Your task to perform on an android device: open chrome privacy settings Image 0: 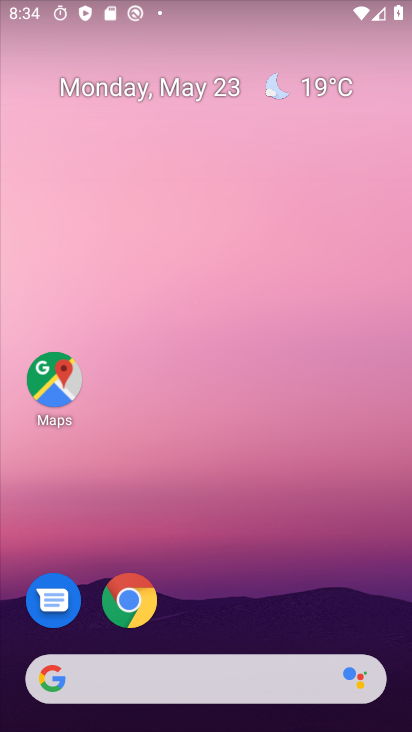
Step 0: click (120, 600)
Your task to perform on an android device: open chrome privacy settings Image 1: 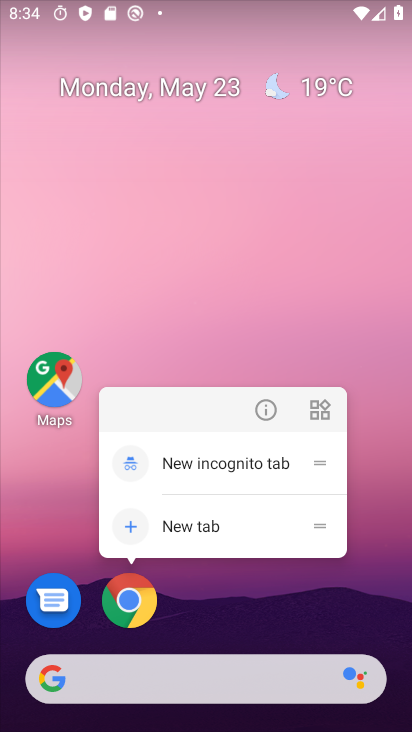
Step 1: click (127, 595)
Your task to perform on an android device: open chrome privacy settings Image 2: 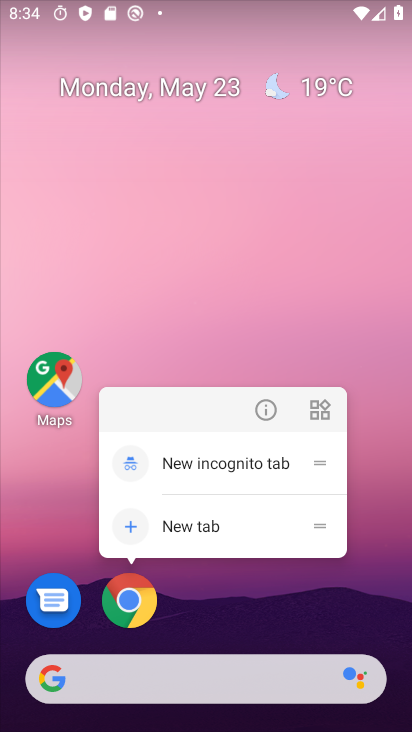
Step 2: click (127, 595)
Your task to perform on an android device: open chrome privacy settings Image 3: 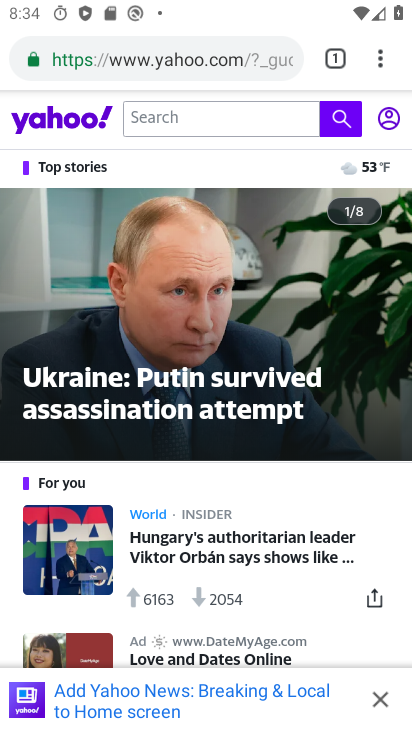
Step 3: click (380, 56)
Your task to perform on an android device: open chrome privacy settings Image 4: 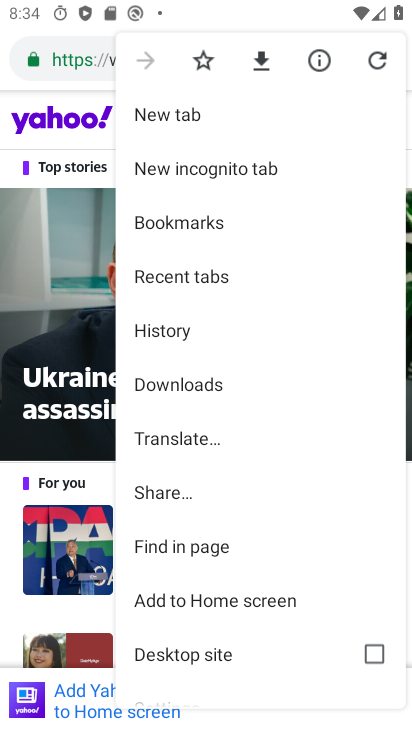
Step 4: drag from (81, 694) to (265, 232)
Your task to perform on an android device: open chrome privacy settings Image 5: 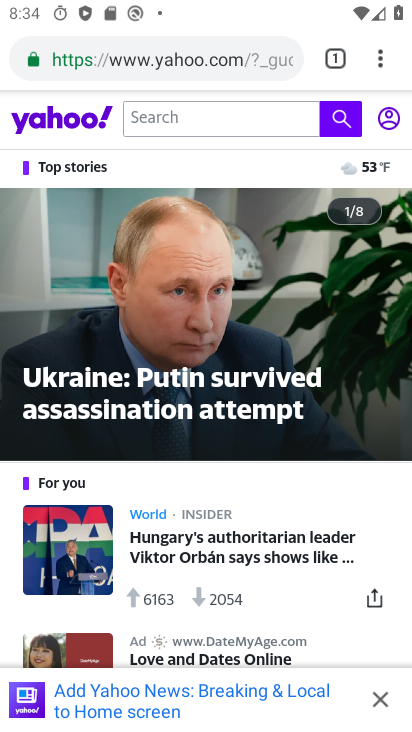
Step 5: click (380, 60)
Your task to perform on an android device: open chrome privacy settings Image 6: 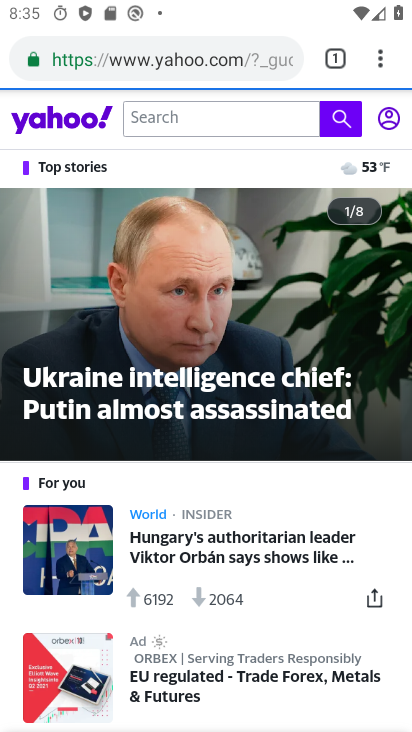
Step 6: click (381, 57)
Your task to perform on an android device: open chrome privacy settings Image 7: 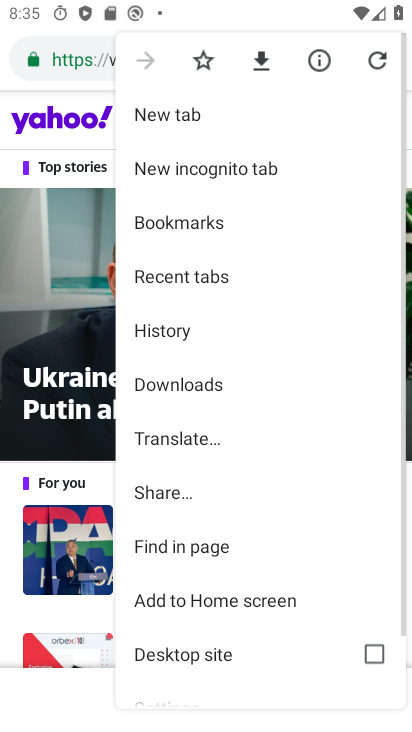
Step 7: drag from (216, 607) to (298, 144)
Your task to perform on an android device: open chrome privacy settings Image 8: 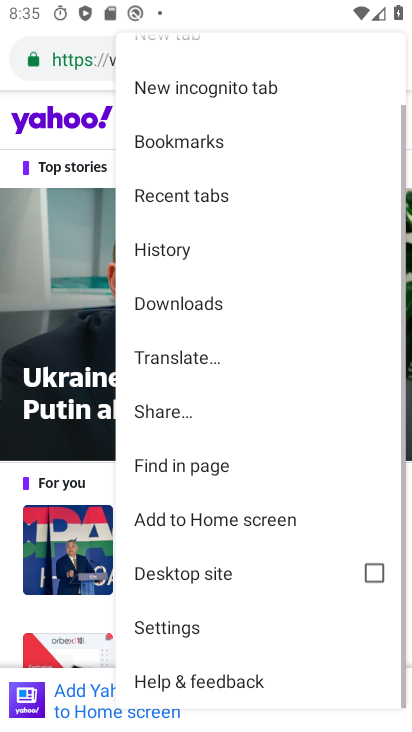
Step 8: click (165, 644)
Your task to perform on an android device: open chrome privacy settings Image 9: 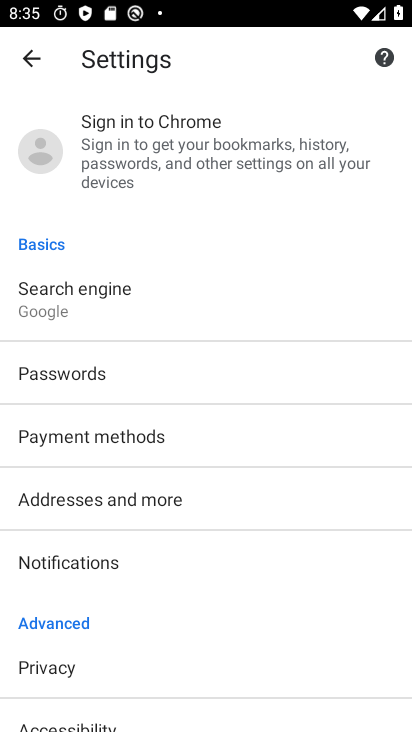
Step 9: click (70, 653)
Your task to perform on an android device: open chrome privacy settings Image 10: 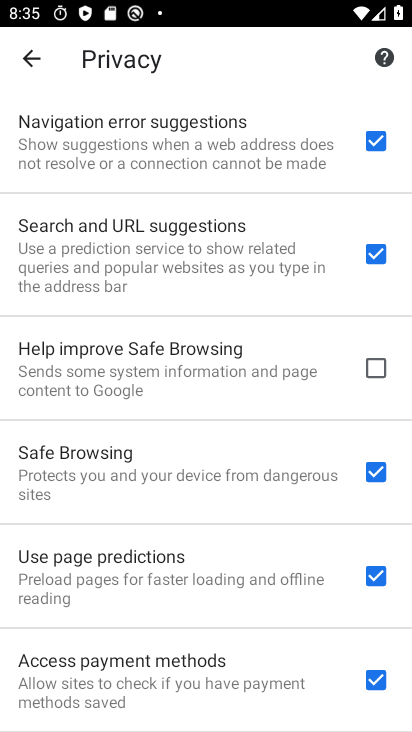
Step 10: task complete